Your task to perform on an android device: change the clock display to analog Image 0: 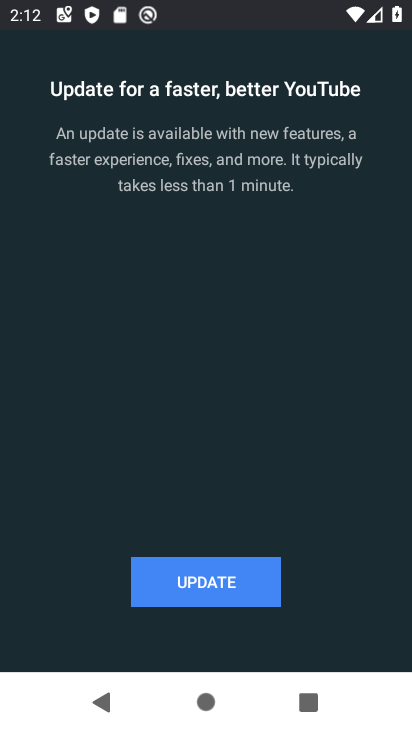
Step 0: press home button
Your task to perform on an android device: change the clock display to analog Image 1: 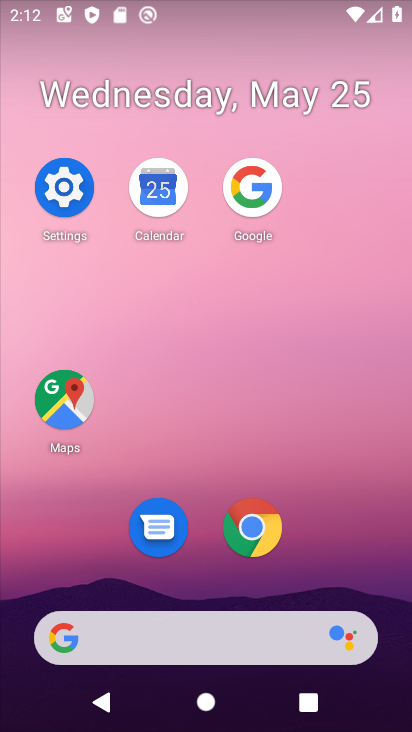
Step 1: drag from (319, 507) to (288, 158)
Your task to perform on an android device: change the clock display to analog Image 2: 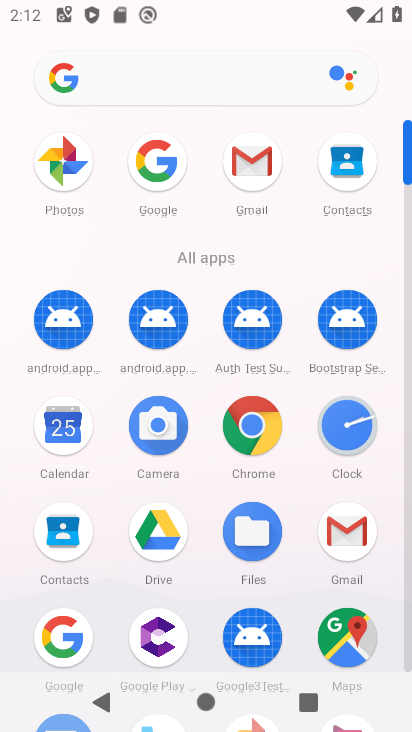
Step 2: drag from (354, 430) to (88, 284)
Your task to perform on an android device: change the clock display to analog Image 3: 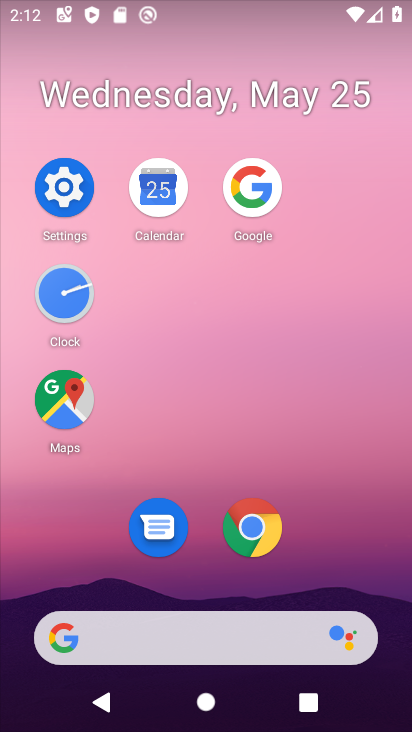
Step 3: click (79, 297)
Your task to perform on an android device: change the clock display to analog Image 4: 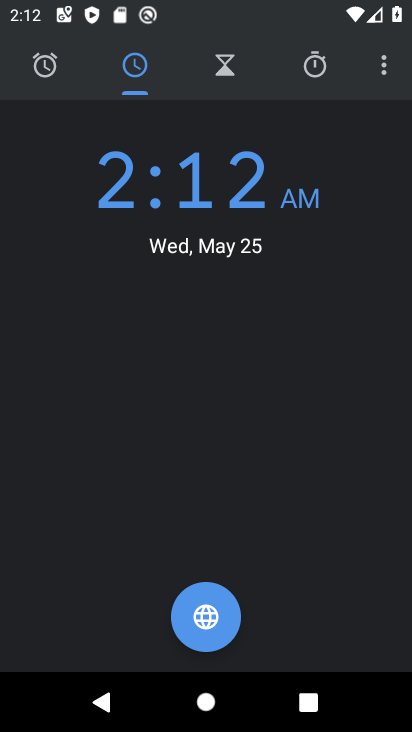
Step 4: click (390, 49)
Your task to perform on an android device: change the clock display to analog Image 5: 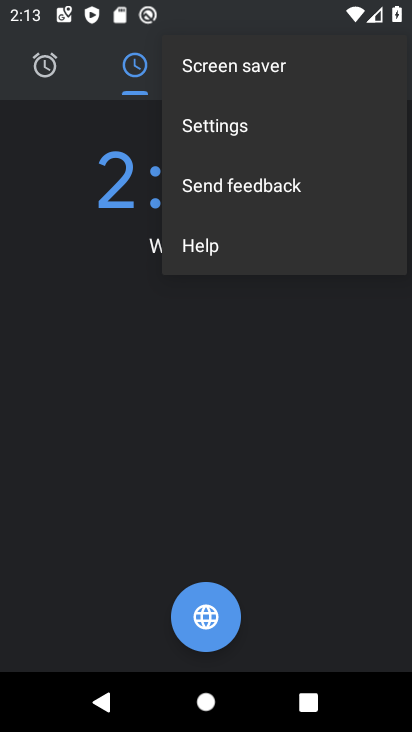
Step 5: click (328, 121)
Your task to perform on an android device: change the clock display to analog Image 6: 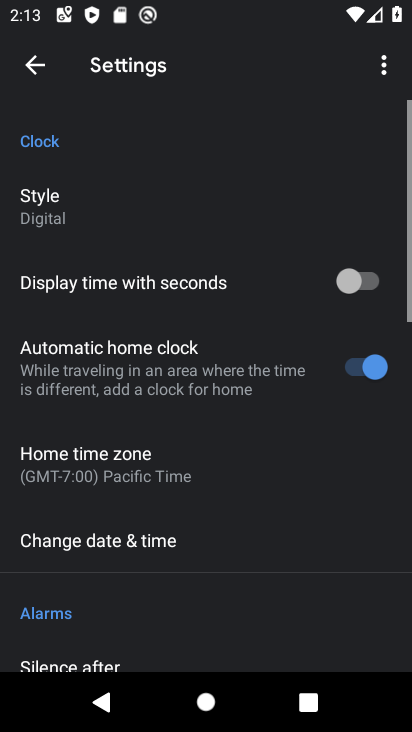
Step 6: click (81, 202)
Your task to perform on an android device: change the clock display to analog Image 7: 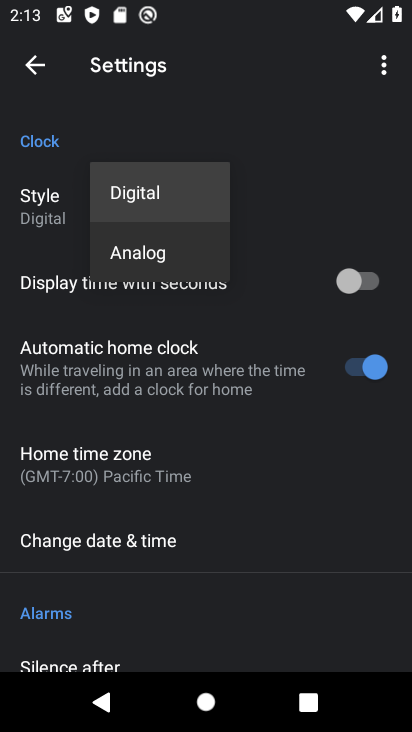
Step 7: click (125, 268)
Your task to perform on an android device: change the clock display to analog Image 8: 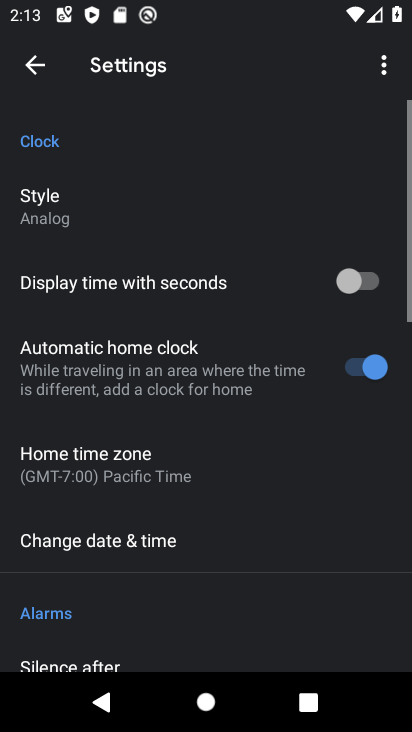
Step 8: task complete